Your task to perform on an android device: Go to CNN.com Image 0: 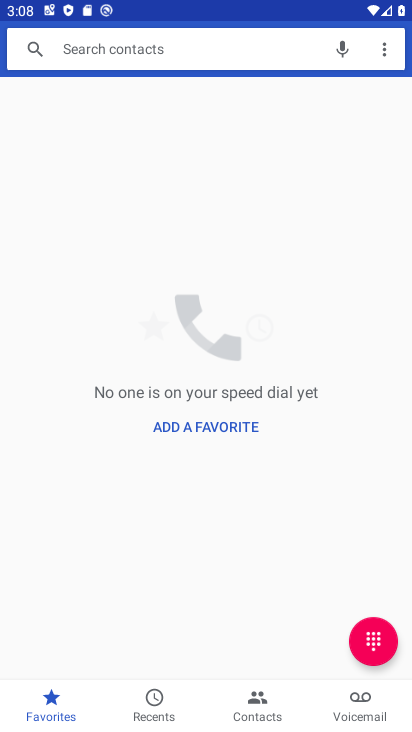
Step 0: press home button
Your task to perform on an android device: Go to CNN.com Image 1: 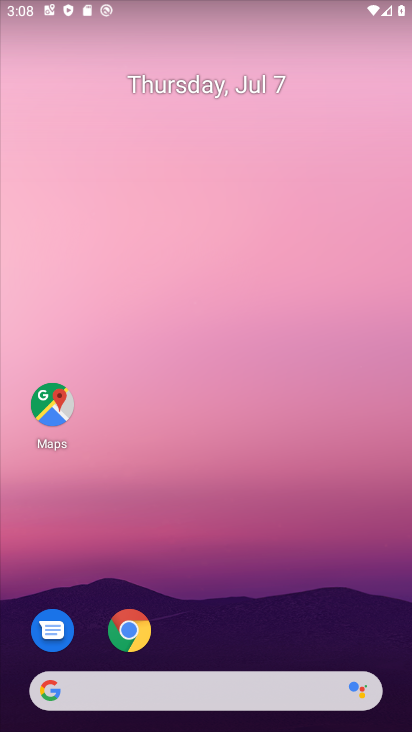
Step 1: click (123, 626)
Your task to perform on an android device: Go to CNN.com Image 2: 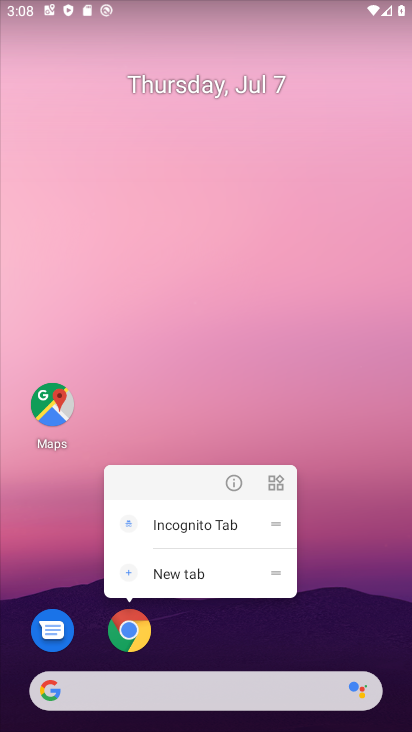
Step 2: click (116, 627)
Your task to perform on an android device: Go to CNN.com Image 3: 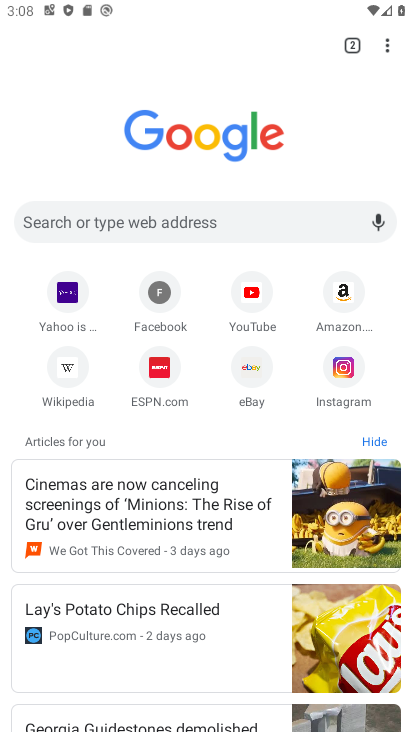
Step 3: click (182, 215)
Your task to perform on an android device: Go to CNN.com Image 4: 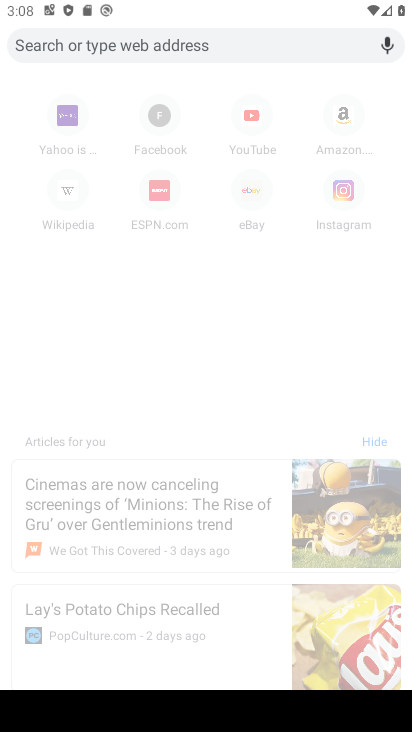
Step 4: type "CNN.com"
Your task to perform on an android device: Go to CNN.com Image 5: 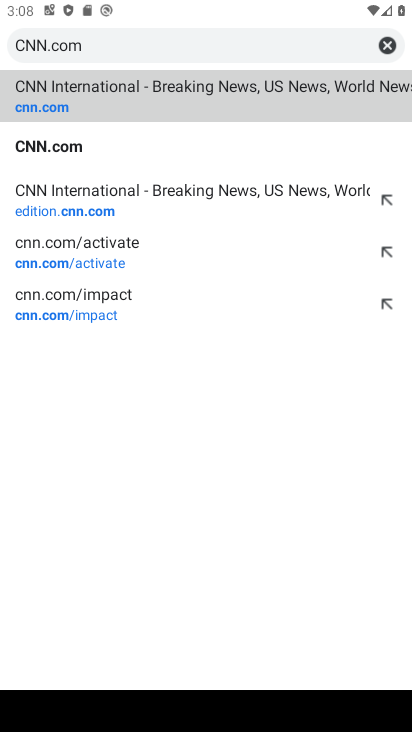
Step 5: click (155, 85)
Your task to perform on an android device: Go to CNN.com Image 6: 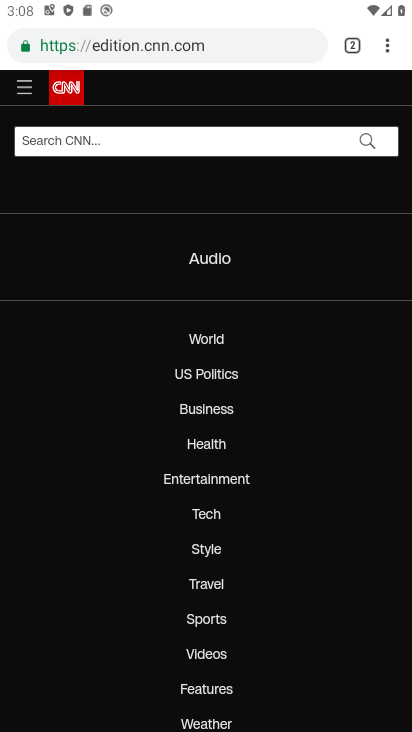
Step 6: task complete